Your task to perform on an android device: toggle sleep mode Image 0: 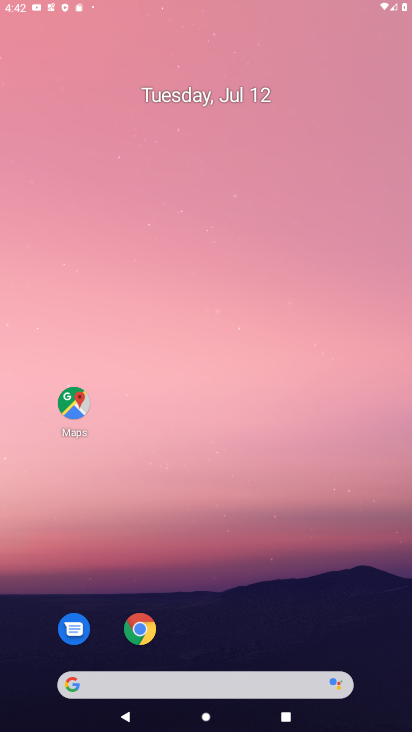
Step 0: press home button
Your task to perform on an android device: toggle sleep mode Image 1: 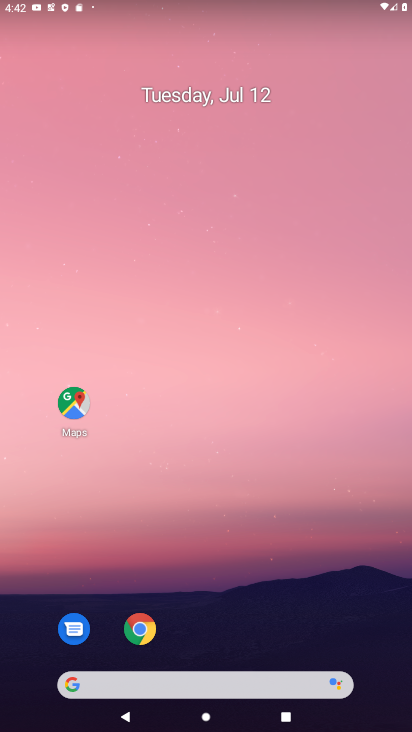
Step 1: drag from (236, 613) to (237, 10)
Your task to perform on an android device: toggle sleep mode Image 2: 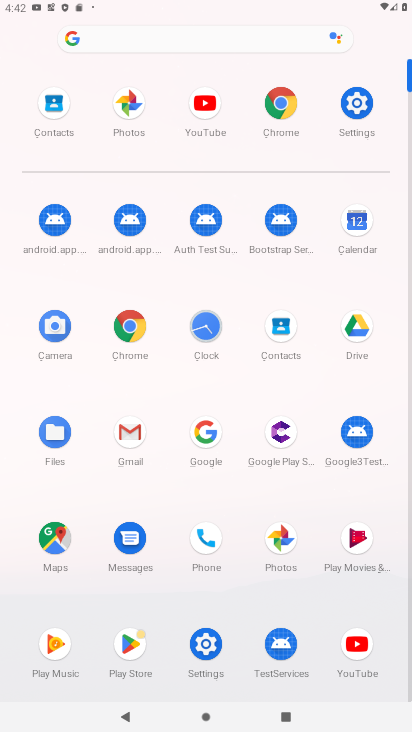
Step 2: click (352, 96)
Your task to perform on an android device: toggle sleep mode Image 3: 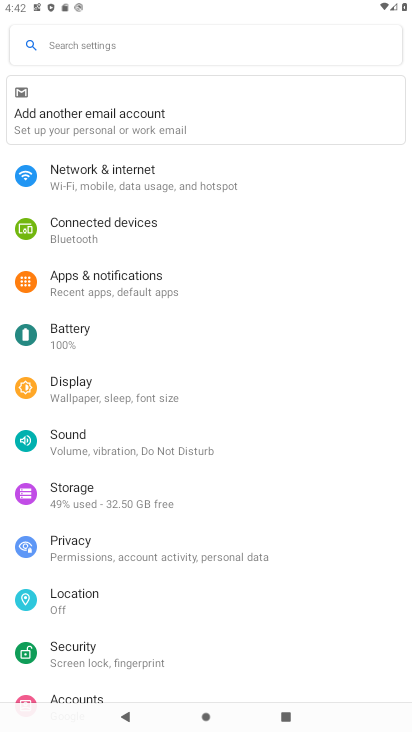
Step 3: click (64, 383)
Your task to perform on an android device: toggle sleep mode Image 4: 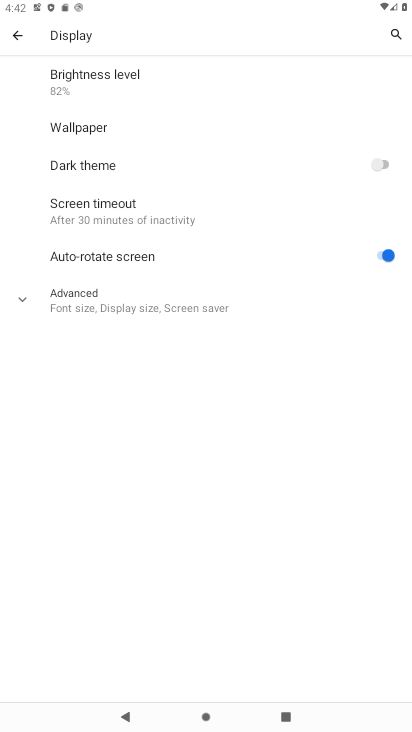
Step 4: task complete